Your task to perform on an android device: toggle pop-ups in chrome Image 0: 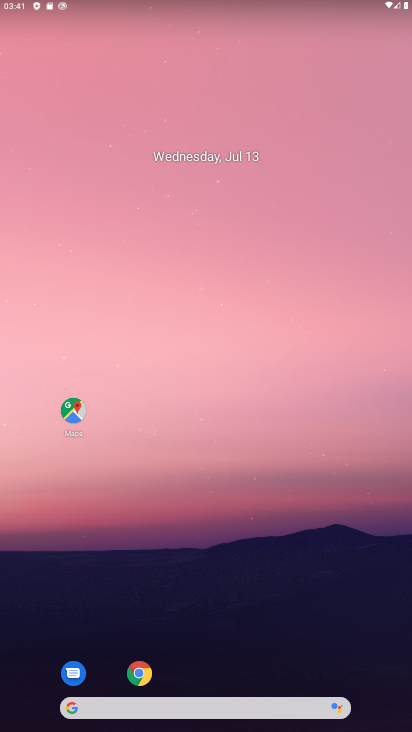
Step 0: drag from (309, 603) to (277, 155)
Your task to perform on an android device: toggle pop-ups in chrome Image 1: 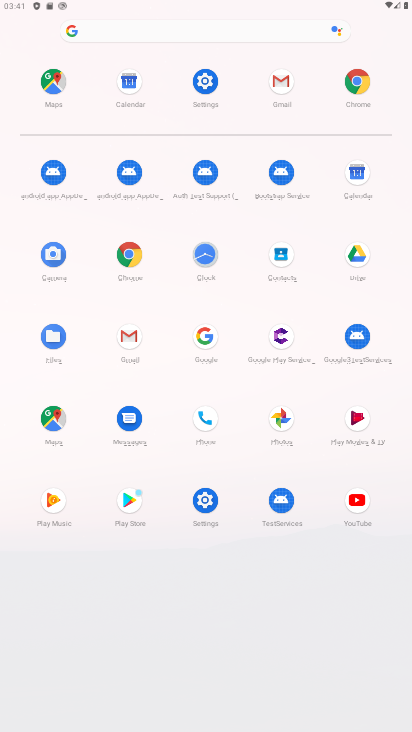
Step 1: click (124, 245)
Your task to perform on an android device: toggle pop-ups in chrome Image 2: 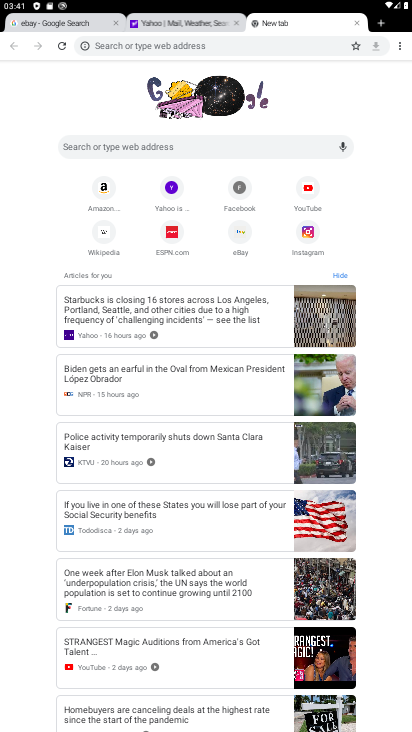
Step 2: drag from (399, 50) to (319, 248)
Your task to perform on an android device: toggle pop-ups in chrome Image 3: 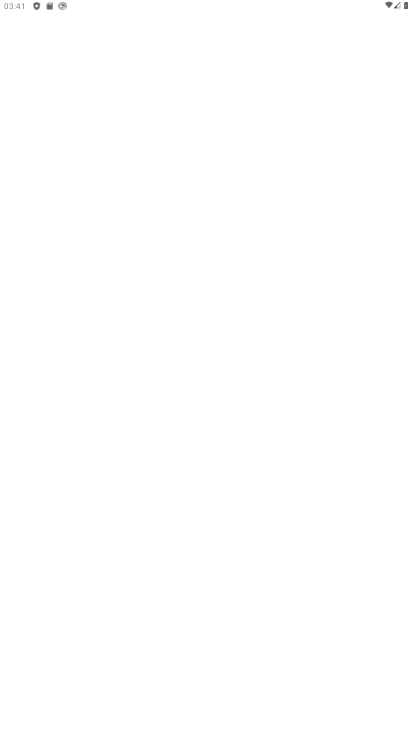
Step 3: click (396, 37)
Your task to perform on an android device: toggle pop-ups in chrome Image 4: 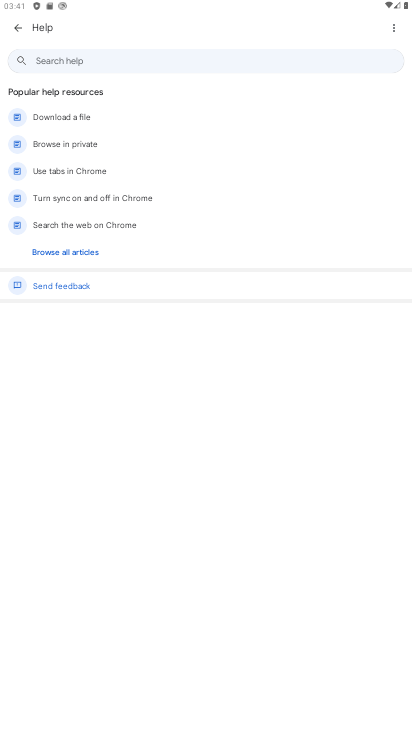
Step 4: press back button
Your task to perform on an android device: toggle pop-ups in chrome Image 5: 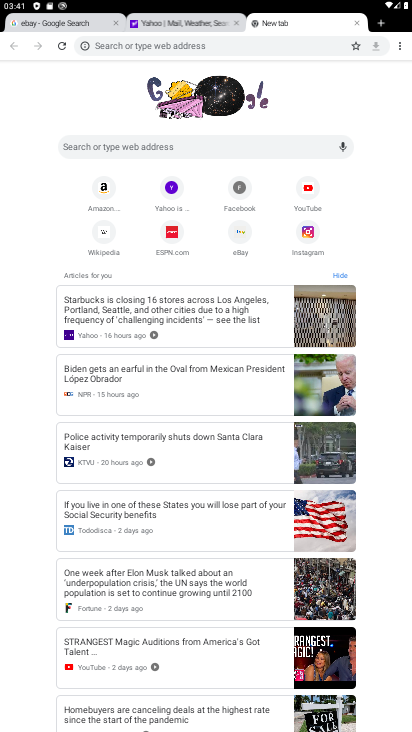
Step 5: drag from (396, 47) to (311, 244)
Your task to perform on an android device: toggle pop-ups in chrome Image 6: 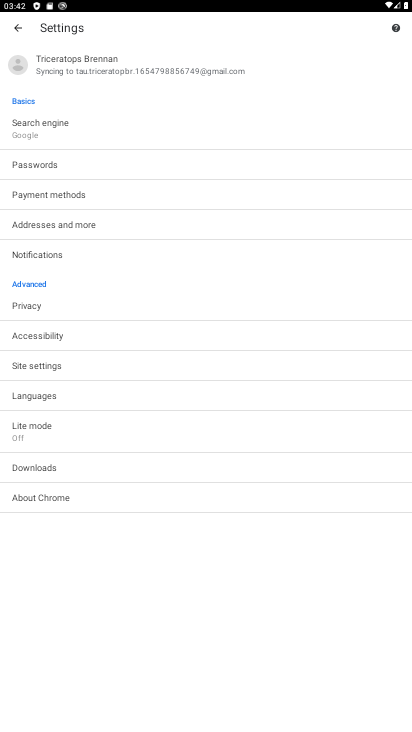
Step 6: click (69, 367)
Your task to perform on an android device: toggle pop-ups in chrome Image 7: 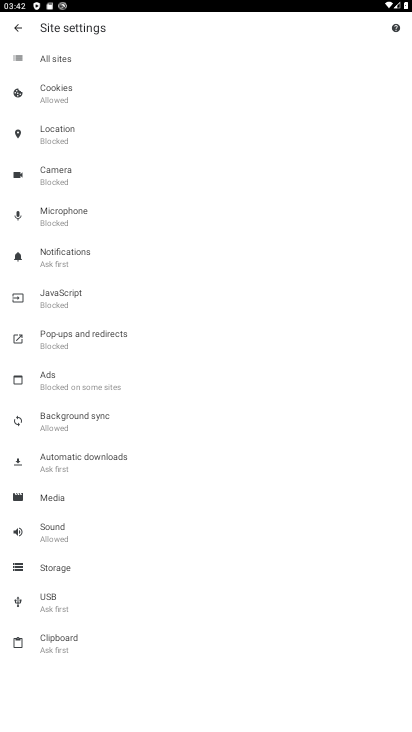
Step 7: click (73, 340)
Your task to perform on an android device: toggle pop-ups in chrome Image 8: 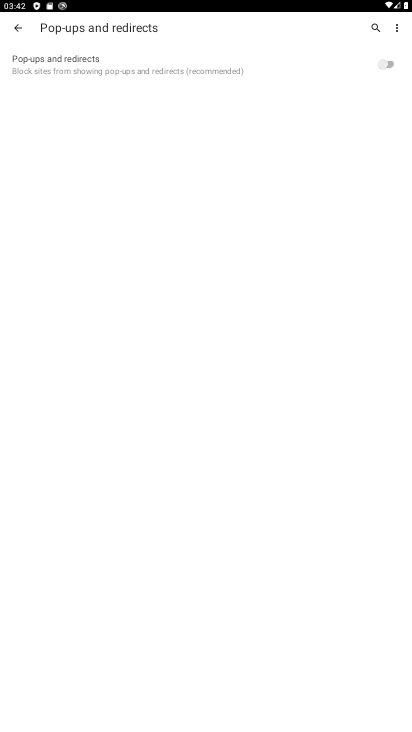
Step 8: click (391, 63)
Your task to perform on an android device: toggle pop-ups in chrome Image 9: 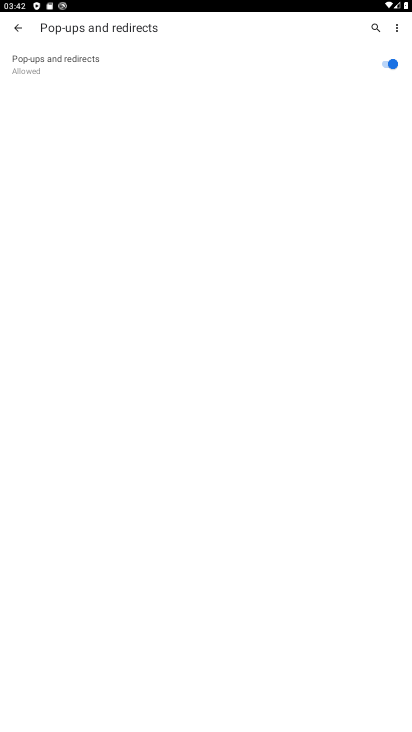
Step 9: task complete